Your task to perform on an android device: toggle show notifications on the lock screen Image 0: 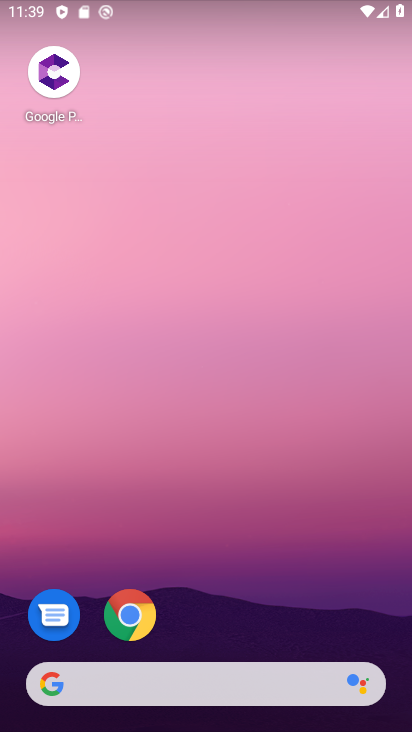
Step 0: drag from (303, 656) to (232, 2)
Your task to perform on an android device: toggle show notifications on the lock screen Image 1: 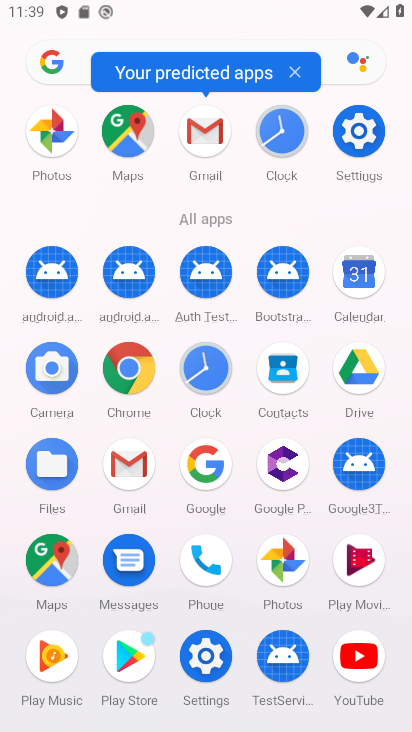
Step 1: click (361, 130)
Your task to perform on an android device: toggle show notifications on the lock screen Image 2: 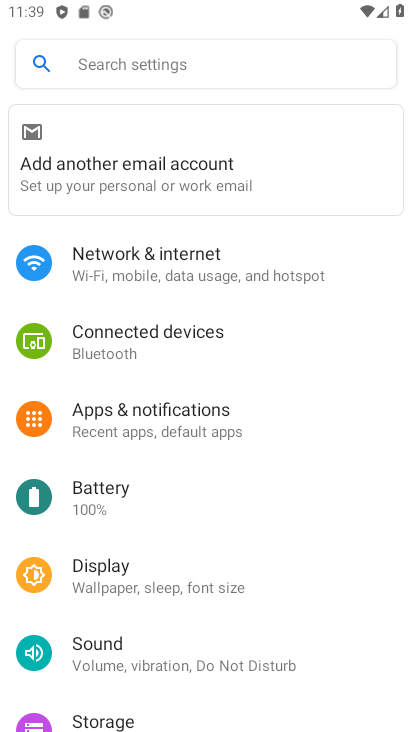
Step 2: click (206, 428)
Your task to perform on an android device: toggle show notifications on the lock screen Image 3: 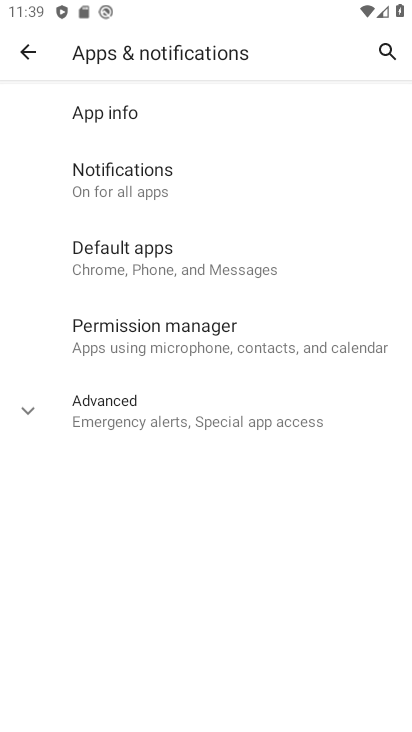
Step 3: click (198, 369)
Your task to perform on an android device: toggle show notifications on the lock screen Image 4: 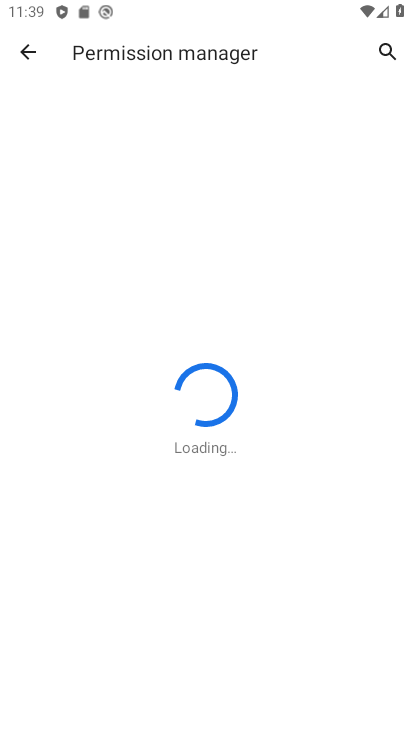
Step 4: press back button
Your task to perform on an android device: toggle show notifications on the lock screen Image 5: 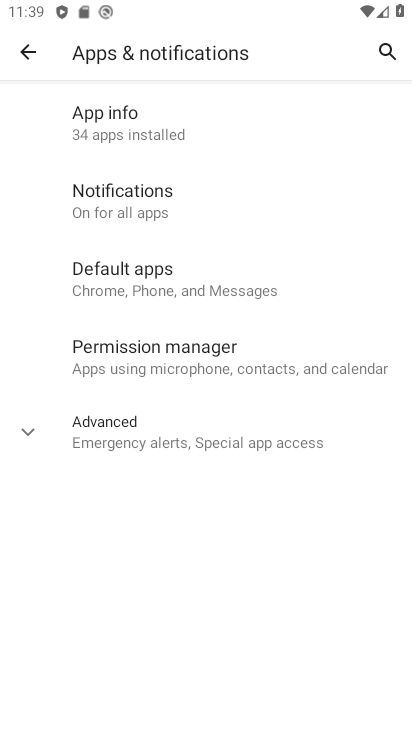
Step 5: click (154, 198)
Your task to perform on an android device: toggle show notifications on the lock screen Image 6: 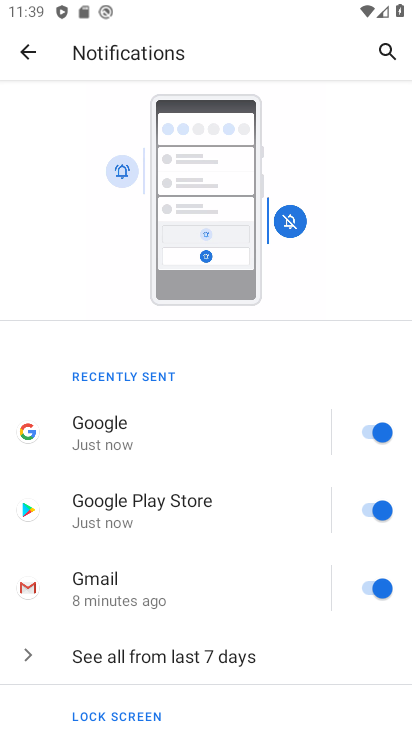
Step 6: drag from (194, 619) to (243, 132)
Your task to perform on an android device: toggle show notifications on the lock screen Image 7: 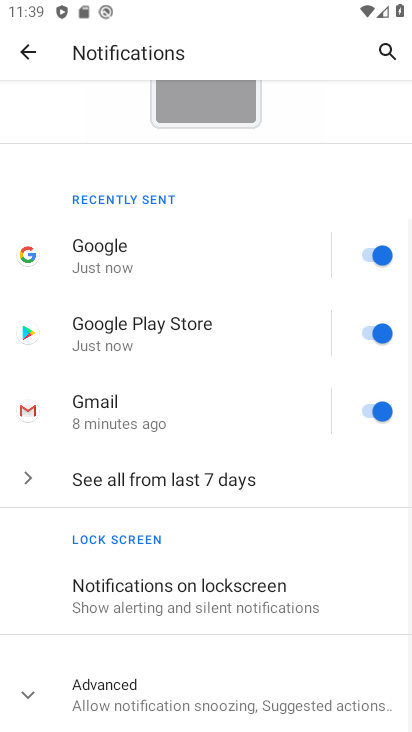
Step 7: click (242, 601)
Your task to perform on an android device: toggle show notifications on the lock screen Image 8: 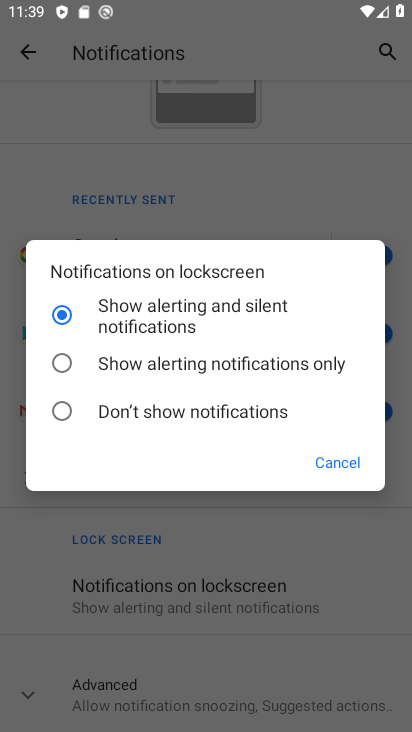
Step 8: click (201, 361)
Your task to perform on an android device: toggle show notifications on the lock screen Image 9: 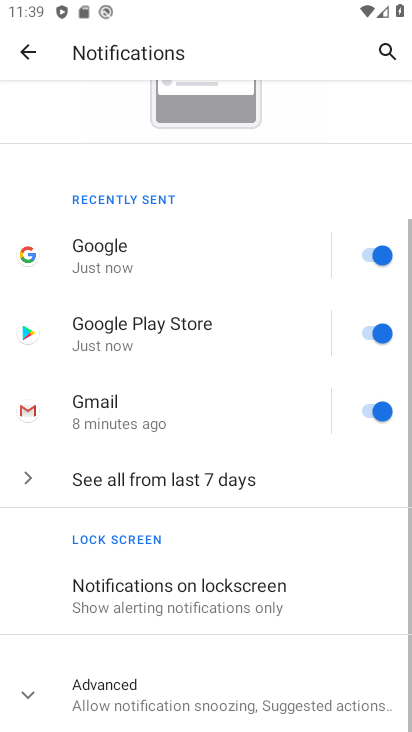
Step 9: task complete